Your task to perform on an android device: check out phone information Image 0: 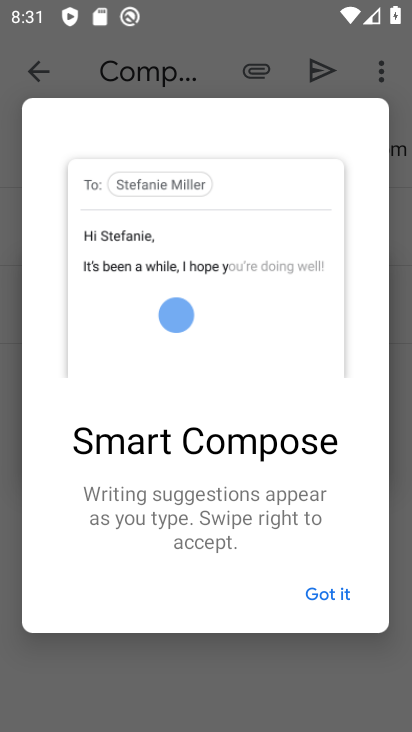
Step 0: press home button
Your task to perform on an android device: check out phone information Image 1: 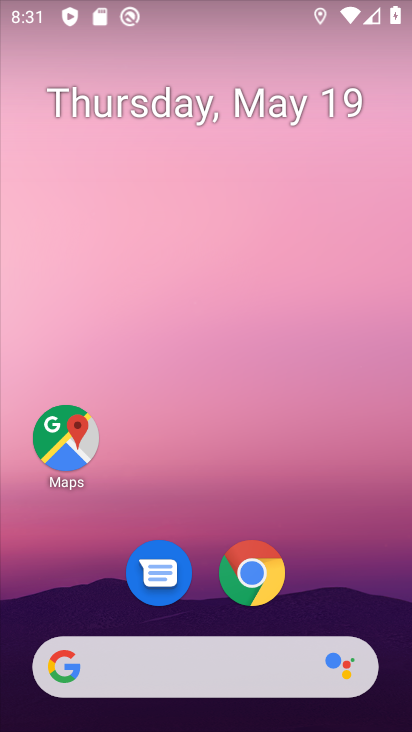
Step 1: drag from (374, 640) to (352, 4)
Your task to perform on an android device: check out phone information Image 2: 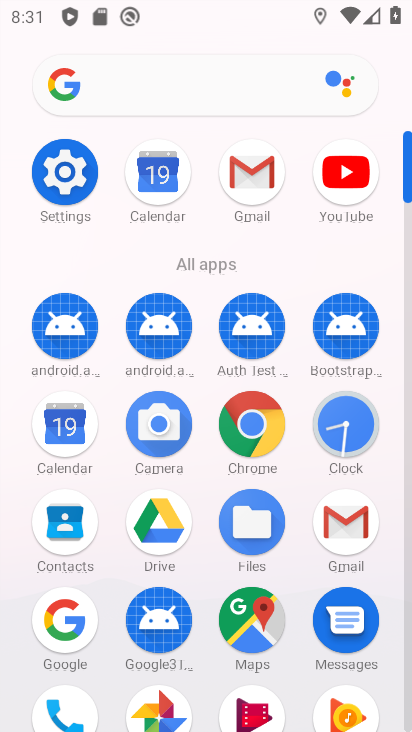
Step 2: click (61, 176)
Your task to perform on an android device: check out phone information Image 3: 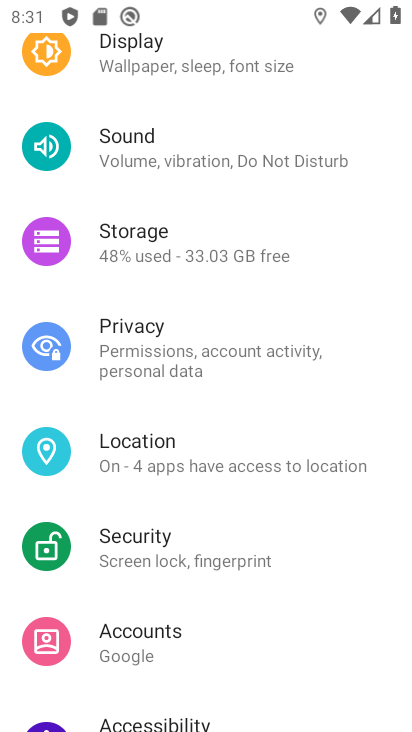
Step 3: drag from (307, 596) to (268, 110)
Your task to perform on an android device: check out phone information Image 4: 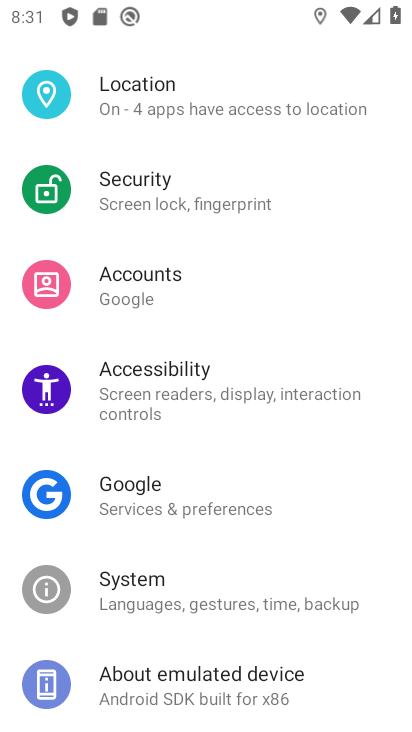
Step 4: drag from (262, 645) to (254, 310)
Your task to perform on an android device: check out phone information Image 5: 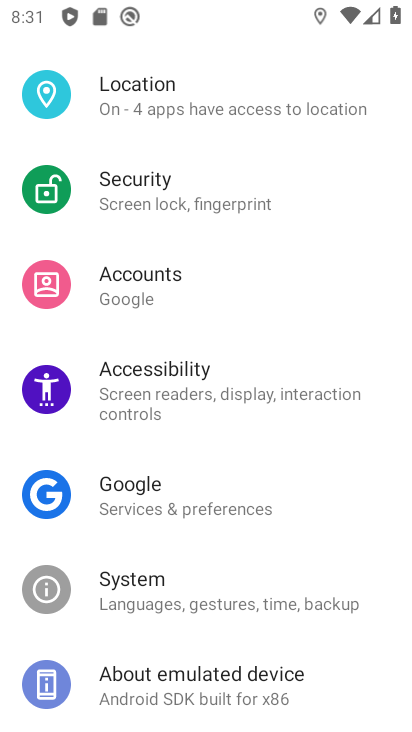
Step 5: click (199, 691)
Your task to perform on an android device: check out phone information Image 6: 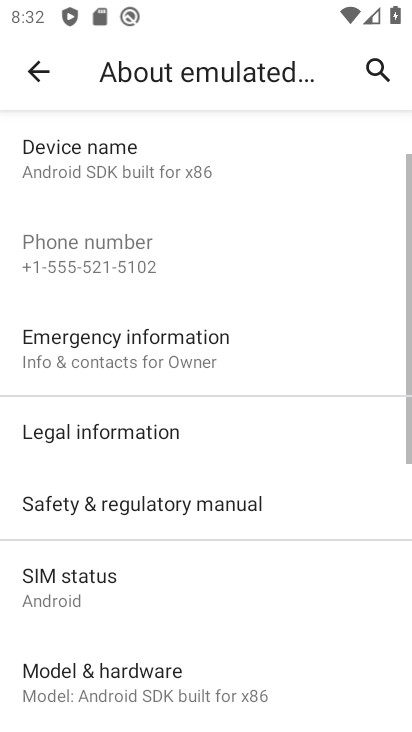
Step 6: task complete